Your task to perform on an android device: Open the calendar app, open the side menu, and click the "Day" option Image 0: 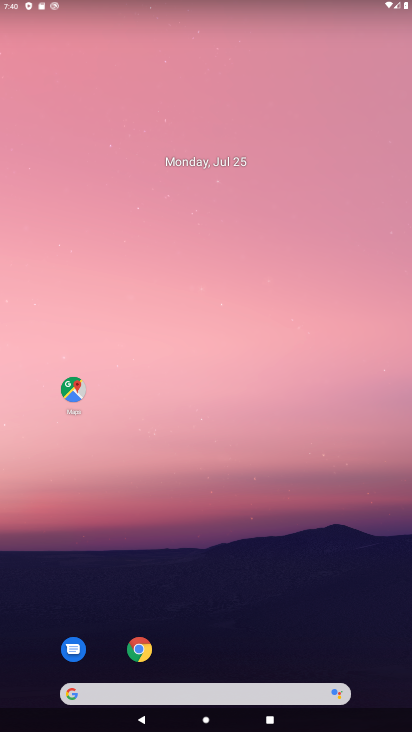
Step 0: drag from (375, 654) to (361, 154)
Your task to perform on an android device: Open the calendar app, open the side menu, and click the "Day" option Image 1: 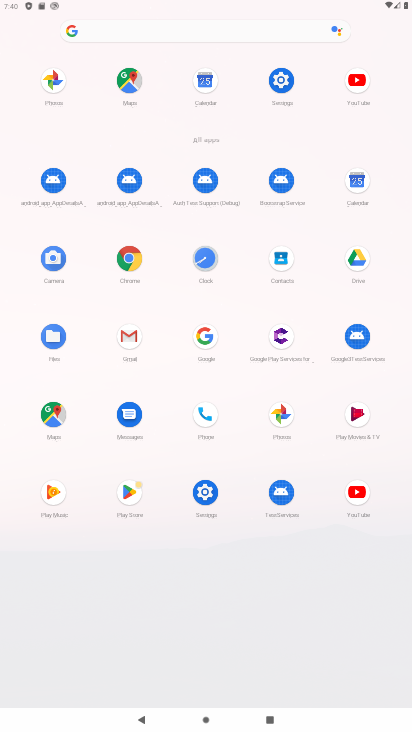
Step 1: click (355, 179)
Your task to perform on an android device: Open the calendar app, open the side menu, and click the "Day" option Image 2: 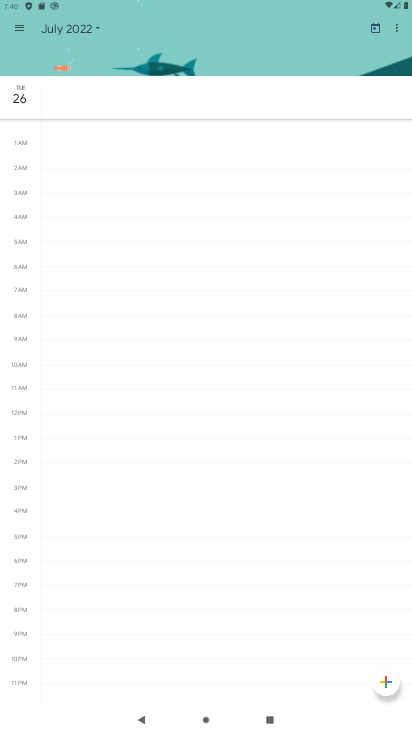
Step 2: click (21, 25)
Your task to perform on an android device: Open the calendar app, open the side menu, and click the "Day" option Image 3: 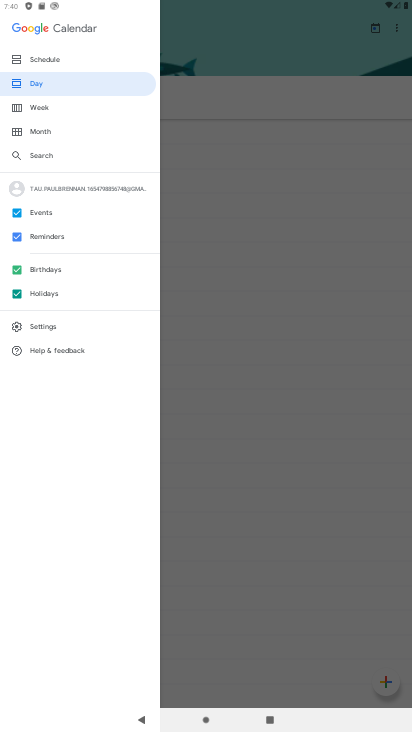
Step 3: click (54, 84)
Your task to perform on an android device: Open the calendar app, open the side menu, and click the "Day" option Image 4: 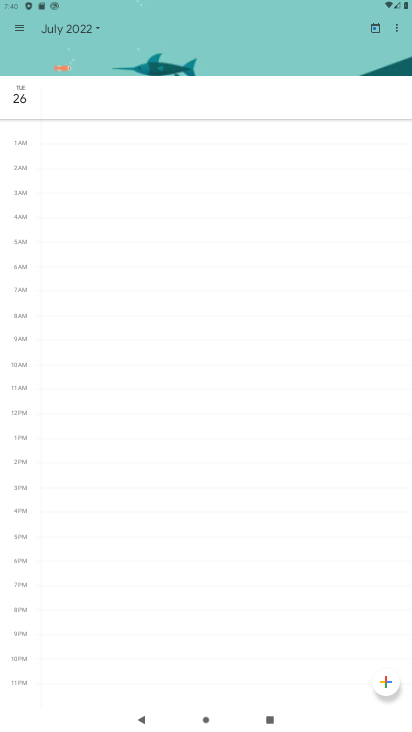
Step 4: task complete